Your task to perform on an android device: Toggle the flashlight Image 0: 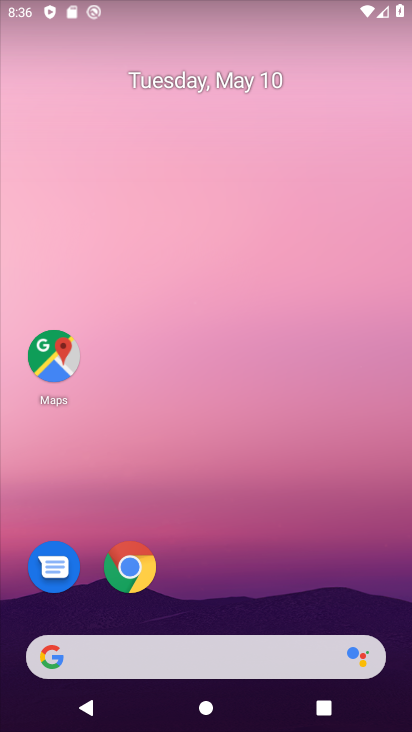
Step 0: drag from (300, 541) to (207, 44)
Your task to perform on an android device: Toggle the flashlight Image 1: 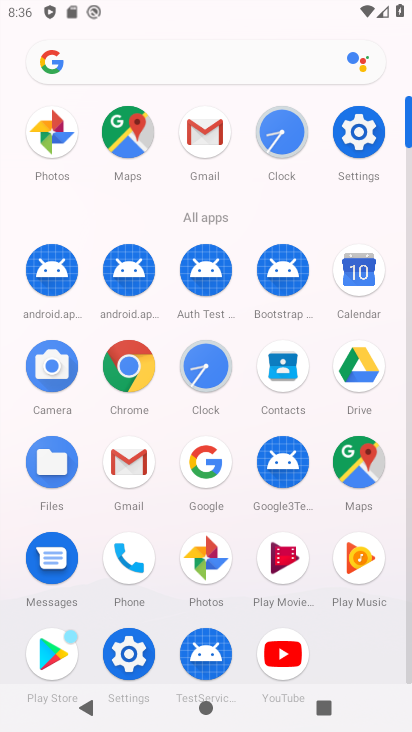
Step 1: click (331, 137)
Your task to perform on an android device: Toggle the flashlight Image 2: 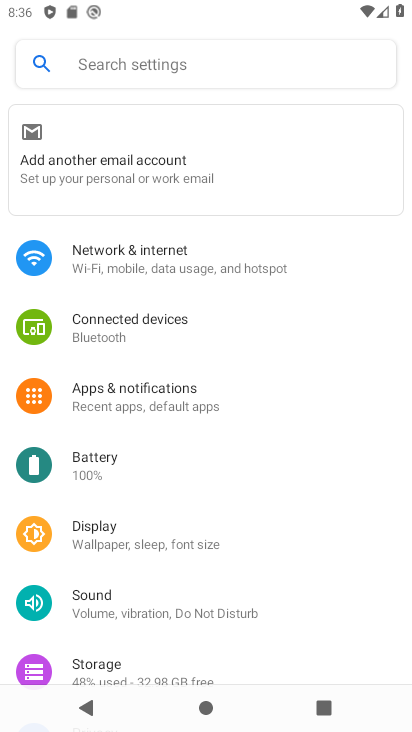
Step 2: task complete